Your task to perform on an android device: turn on sleep mode Image 0: 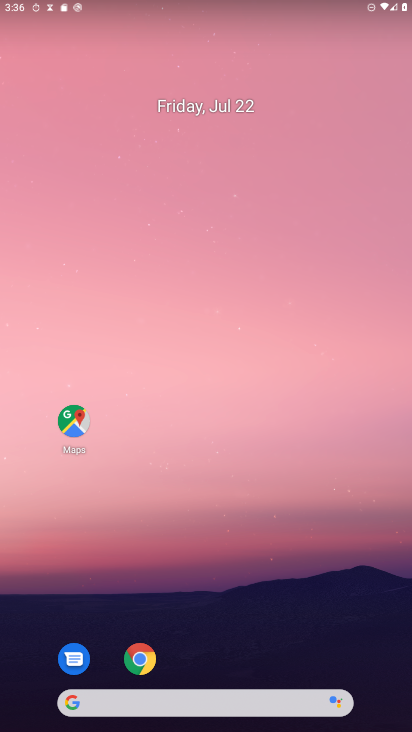
Step 0: drag from (321, 501) to (392, 60)
Your task to perform on an android device: turn on sleep mode Image 1: 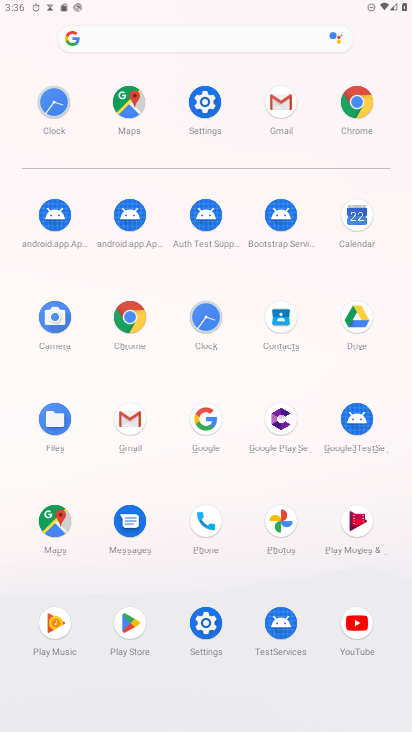
Step 1: click (208, 108)
Your task to perform on an android device: turn on sleep mode Image 2: 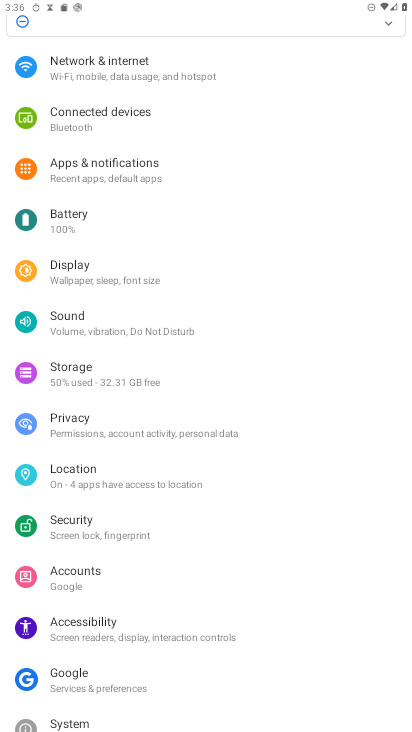
Step 2: click (119, 263)
Your task to perform on an android device: turn on sleep mode Image 3: 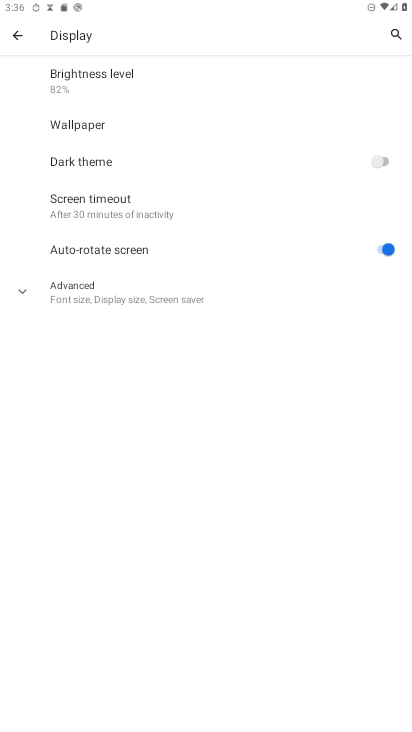
Step 3: click (87, 215)
Your task to perform on an android device: turn on sleep mode Image 4: 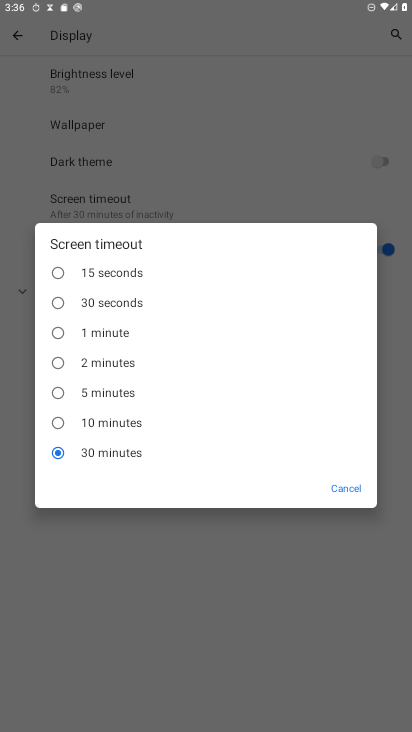
Step 4: click (95, 360)
Your task to perform on an android device: turn on sleep mode Image 5: 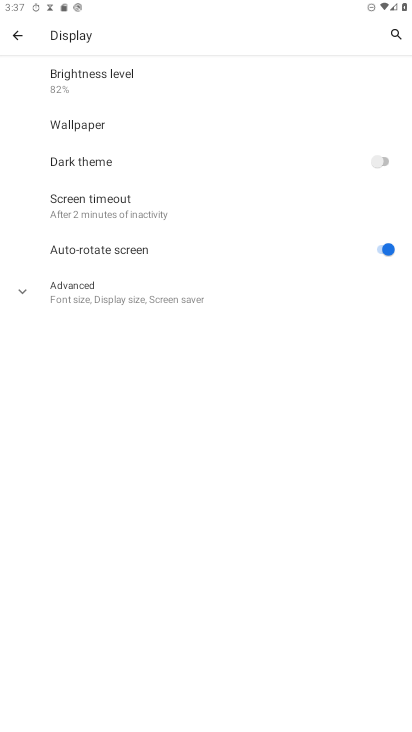
Step 5: task complete